Your task to perform on an android device: add a label to a message in the gmail app Image 0: 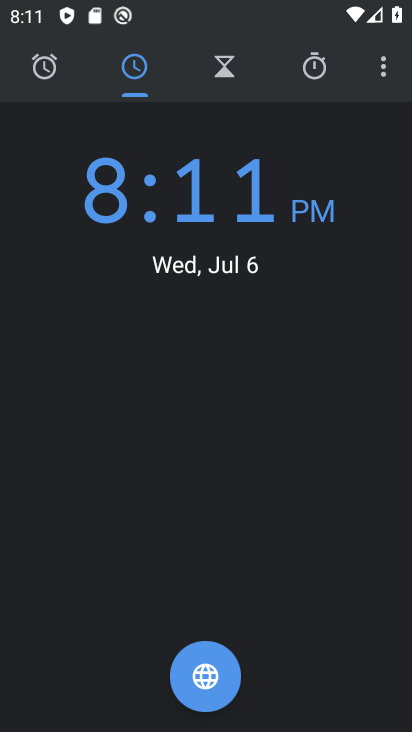
Step 0: press home button
Your task to perform on an android device: add a label to a message in the gmail app Image 1: 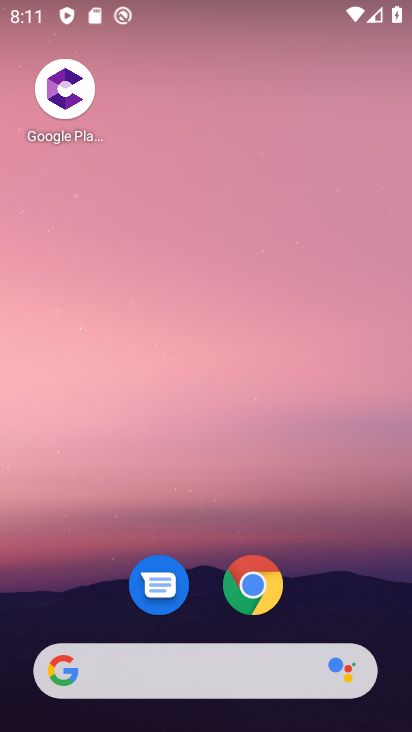
Step 1: drag from (224, 519) to (249, 2)
Your task to perform on an android device: add a label to a message in the gmail app Image 2: 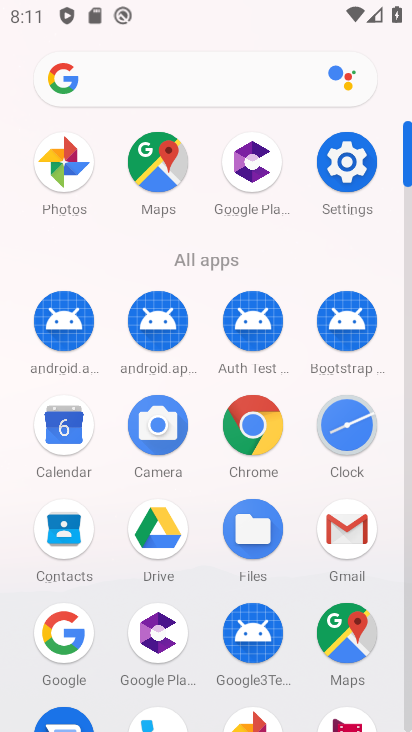
Step 2: click (352, 533)
Your task to perform on an android device: add a label to a message in the gmail app Image 3: 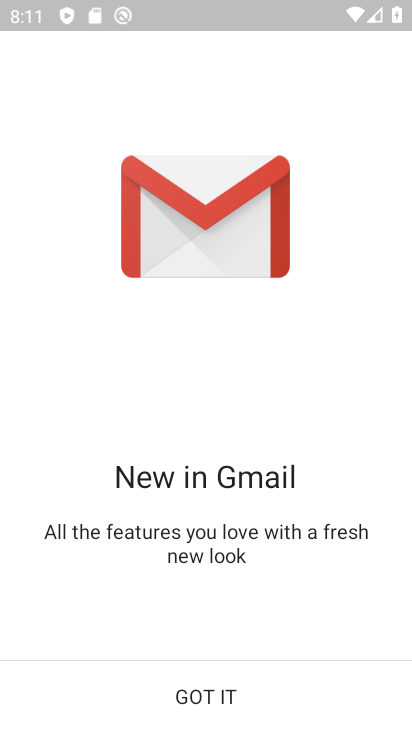
Step 3: click (223, 700)
Your task to perform on an android device: add a label to a message in the gmail app Image 4: 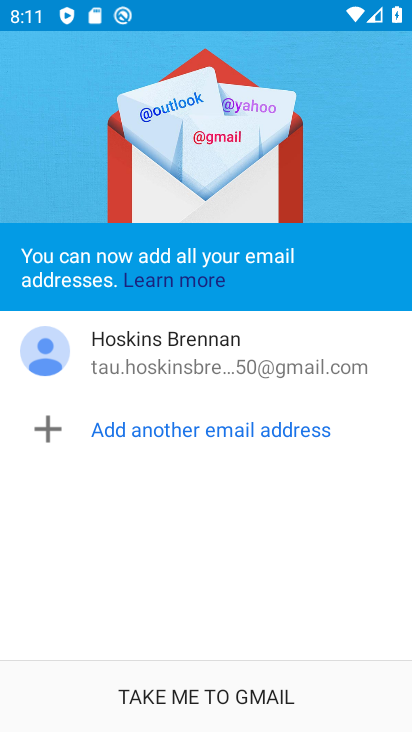
Step 4: click (223, 701)
Your task to perform on an android device: add a label to a message in the gmail app Image 5: 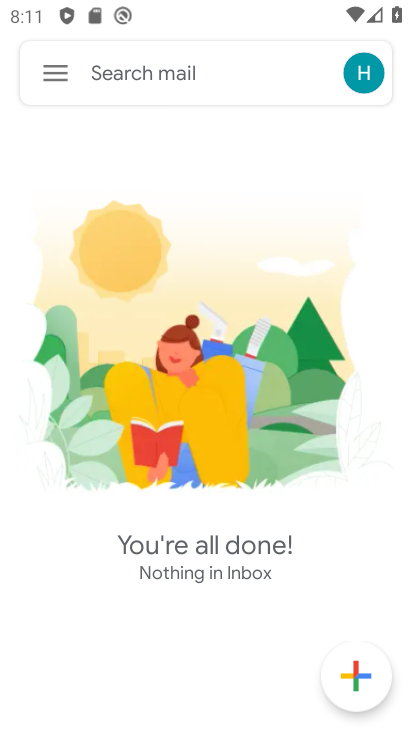
Step 5: task complete